Your task to perform on an android device: Do I have any events tomorrow? Image 0: 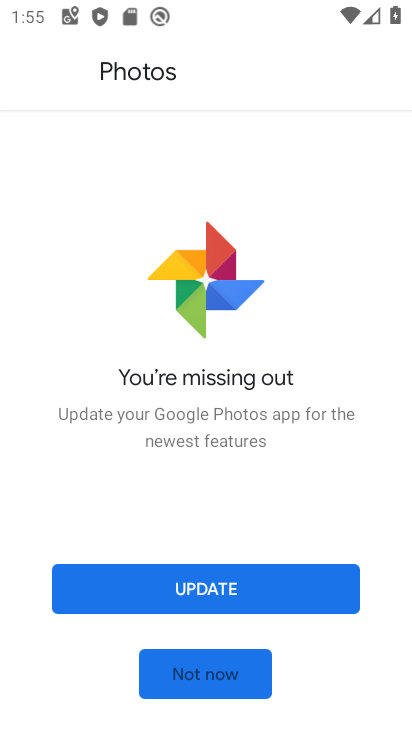
Step 0: press home button
Your task to perform on an android device: Do I have any events tomorrow? Image 1: 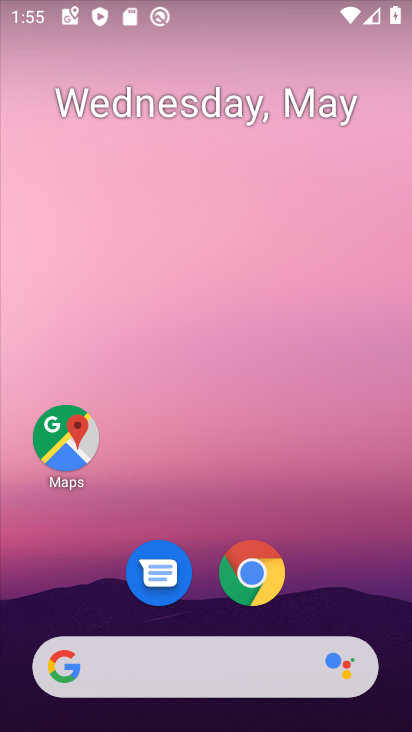
Step 1: drag from (200, 583) to (350, 2)
Your task to perform on an android device: Do I have any events tomorrow? Image 2: 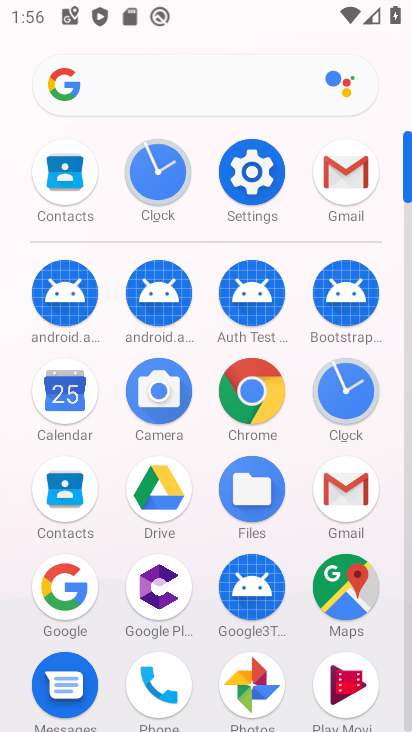
Step 2: click (64, 407)
Your task to perform on an android device: Do I have any events tomorrow? Image 3: 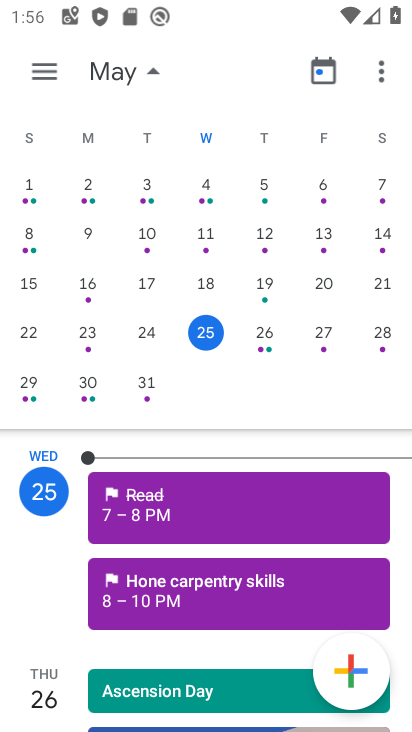
Step 3: click (247, 345)
Your task to perform on an android device: Do I have any events tomorrow? Image 4: 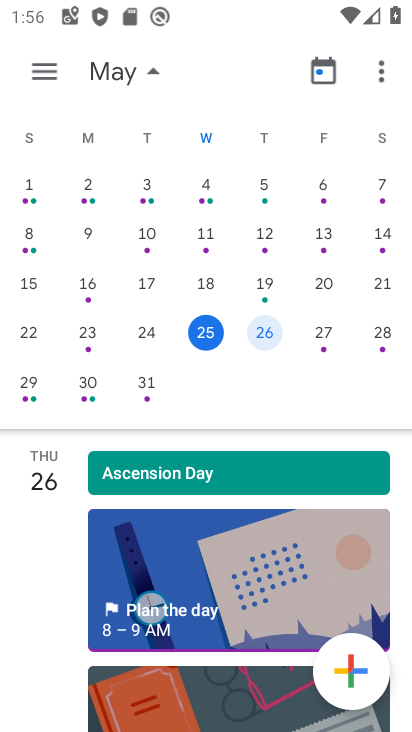
Step 4: task complete